Your task to perform on an android device: toggle translation in the chrome app Image 0: 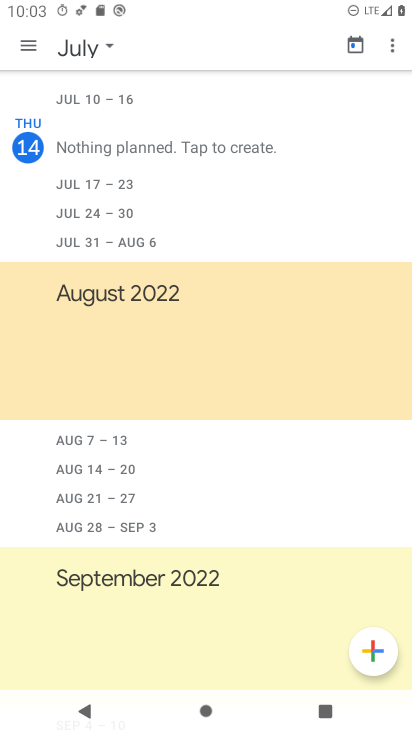
Step 0: press home button
Your task to perform on an android device: toggle translation in the chrome app Image 1: 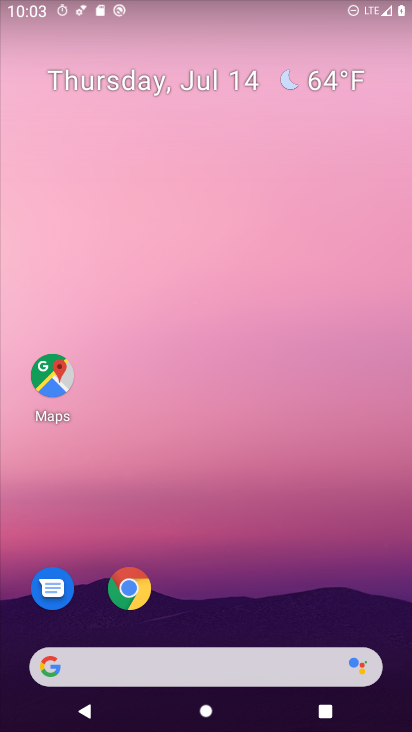
Step 1: drag from (347, 587) to (357, 94)
Your task to perform on an android device: toggle translation in the chrome app Image 2: 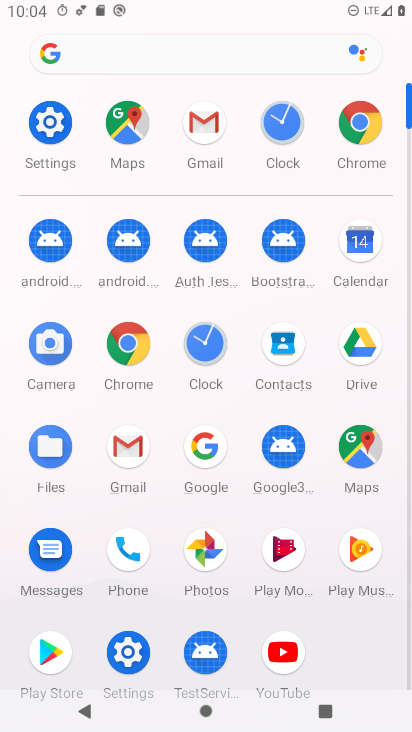
Step 2: click (364, 136)
Your task to perform on an android device: toggle translation in the chrome app Image 3: 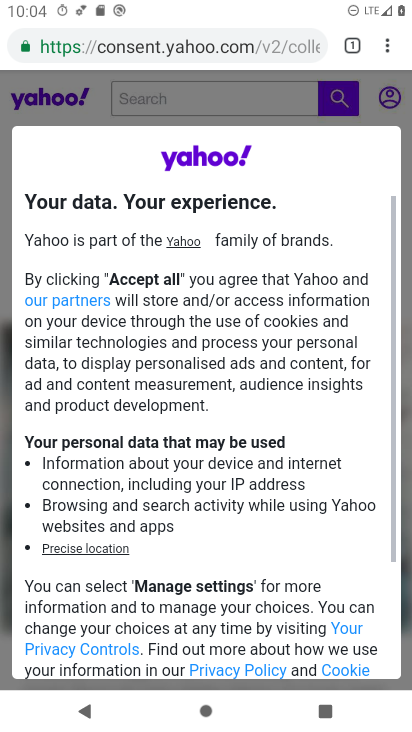
Step 3: click (389, 52)
Your task to perform on an android device: toggle translation in the chrome app Image 4: 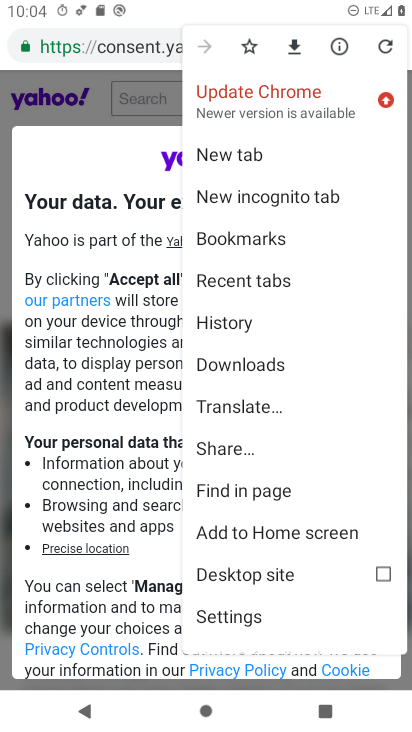
Step 4: click (266, 617)
Your task to perform on an android device: toggle translation in the chrome app Image 5: 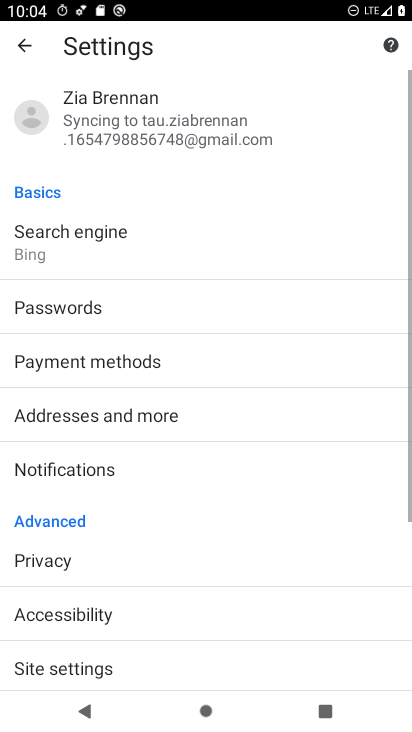
Step 5: drag from (307, 565) to (309, 433)
Your task to perform on an android device: toggle translation in the chrome app Image 6: 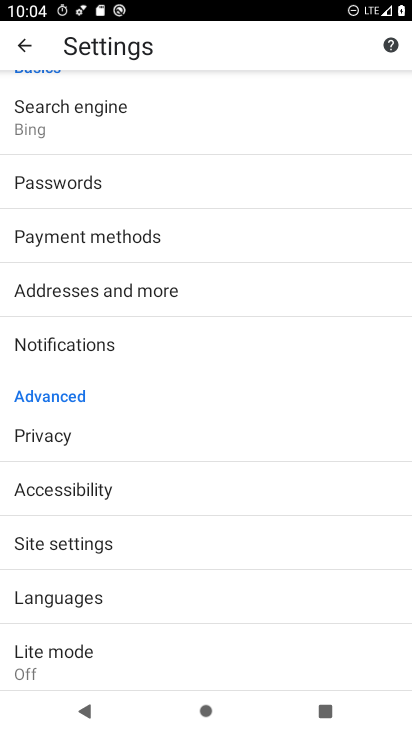
Step 6: drag from (299, 562) to (307, 462)
Your task to perform on an android device: toggle translation in the chrome app Image 7: 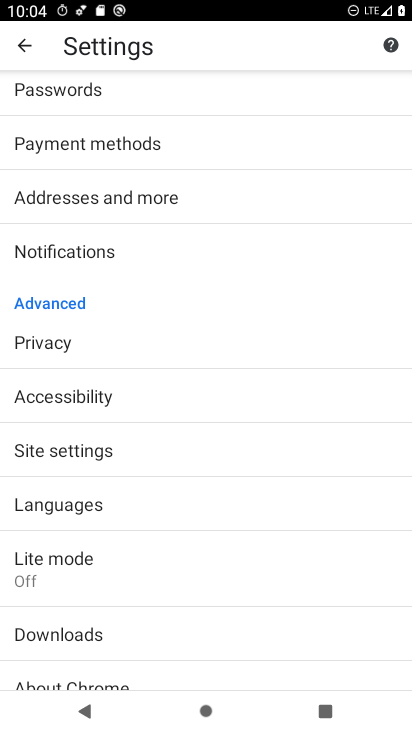
Step 7: drag from (298, 589) to (302, 489)
Your task to perform on an android device: toggle translation in the chrome app Image 8: 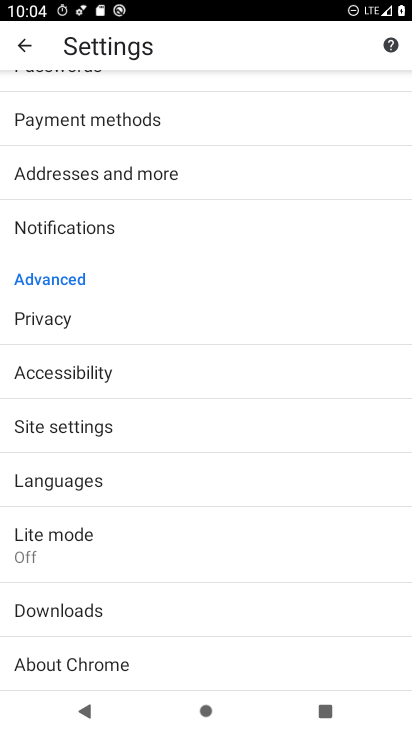
Step 8: click (261, 481)
Your task to perform on an android device: toggle translation in the chrome app Image 9: 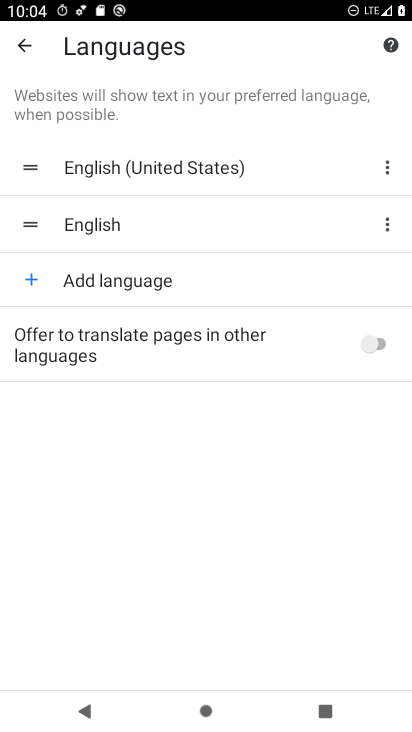
Step 9: click (367, 352)
Your task to perform on an android device: toggle translation in the chrome app Image 10: 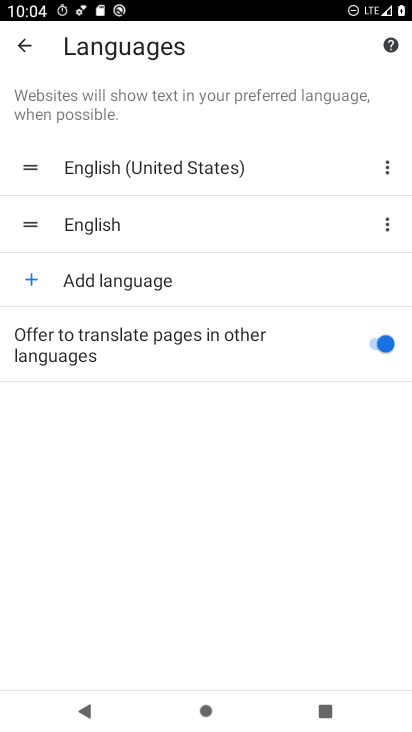
Step 10: task complete